Your task to perform on an android device: Turn off the flashlight Image 0: 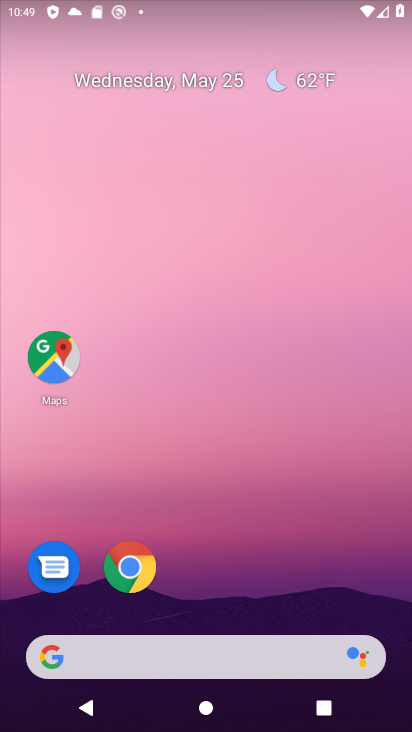
Step 0: drag from (368, 602) to (288, 53)
Your task to perform on an android device: Turn off the flashlight Image 1: 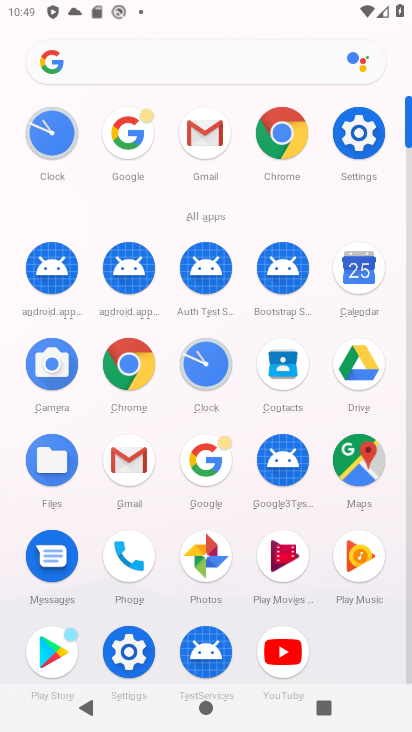
Step 1: click (361, 133)
Your task to perform on an android device: Turn off the flashlight Image 2: 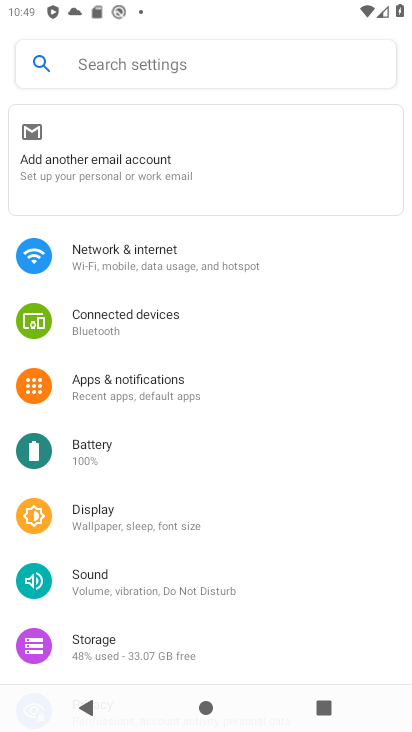
Step 2: task complete